Your task to perform on an android device: clear all cookies in the chrome app Image 0: 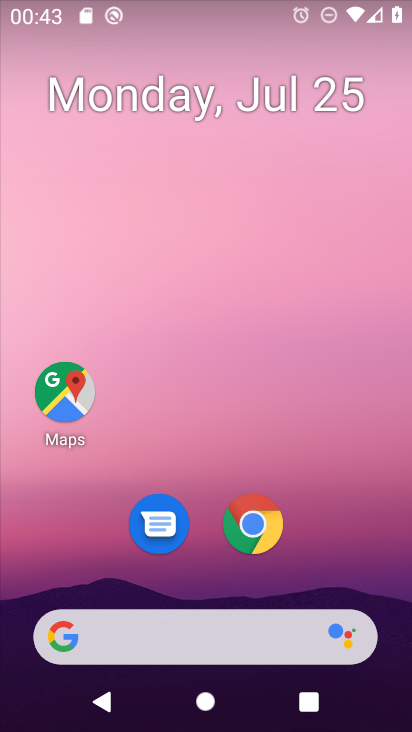
Step 0: click (260, 521)
Your task to perform on an android device: clear all cookies in the chrome app Image 1: 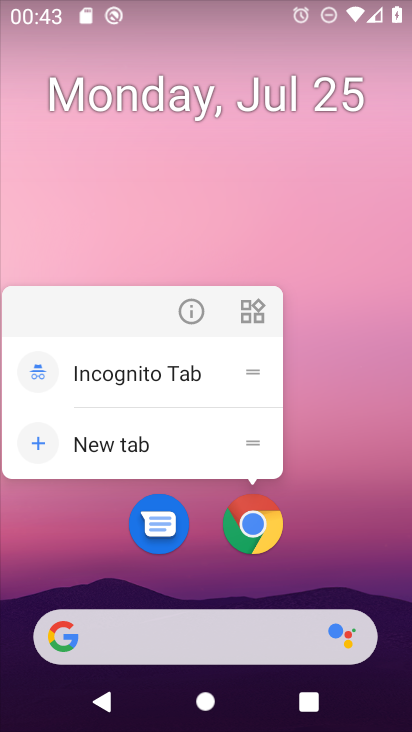
Step 1: click (250, 528)
Your task to perform on an android device: clear all cookies in the chrome app Image 2: 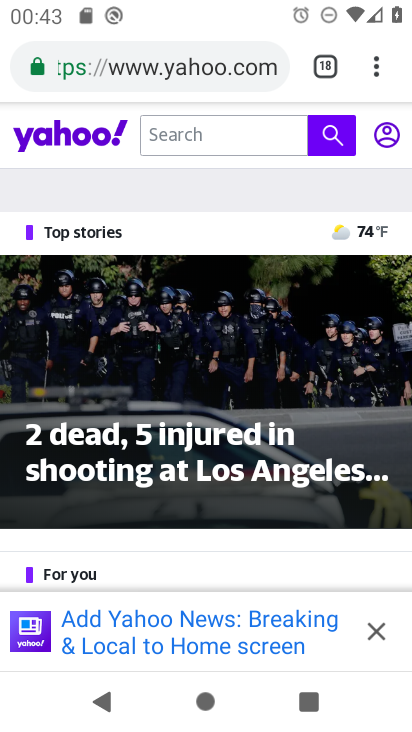
Step 2: drag from (374, 68) to (230, 530)
Your task to perform on an android device: clear all cookies in the chrome app Image 3: 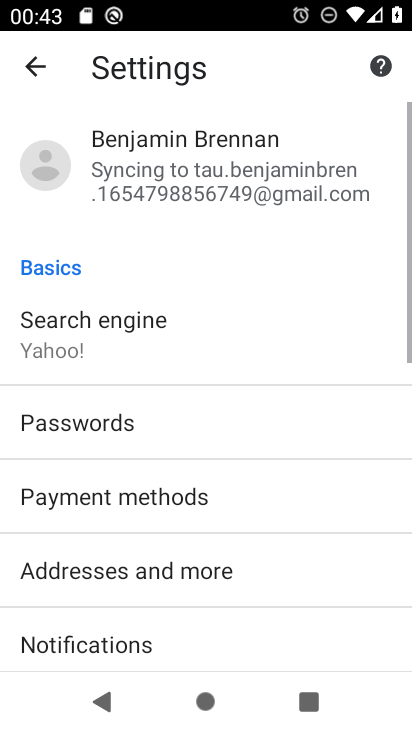
Step 3: drag from (290, 450) to (328, 237)
Your task to perform on an android device: clear all cookies in the chrome app Image 4: 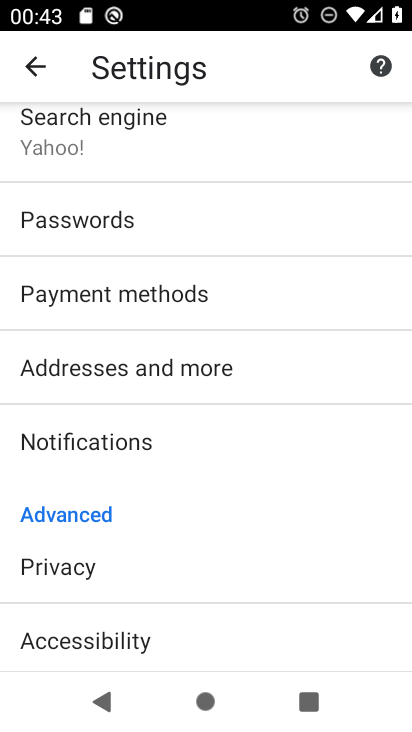
Step 4: drag from (235, 584) to (315, 272)
Your task to perform on an android device: clear all cookies in the chrome app Image 5: 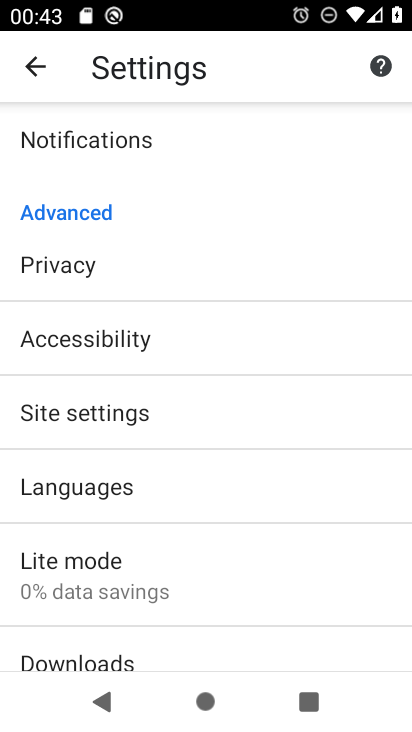
Step 5: click (85, 274)
Your task to perform on an android device: clear all cookies in the chrome app Image 6: 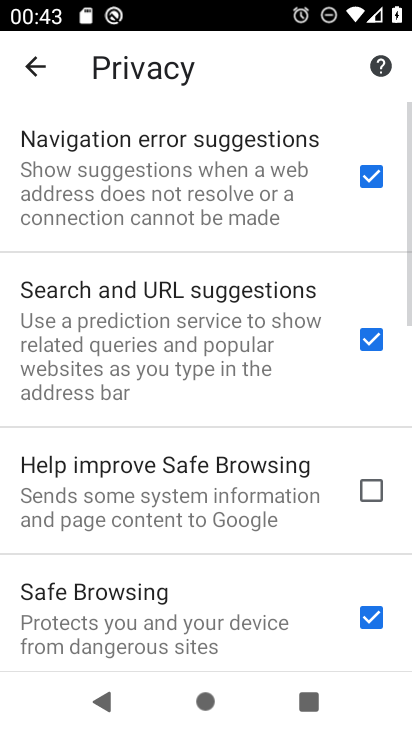
Step 6: drag from (215, 634) to (379, 146)
Your task to perform on an android device: clear all cookies in the chrome app Image 7: 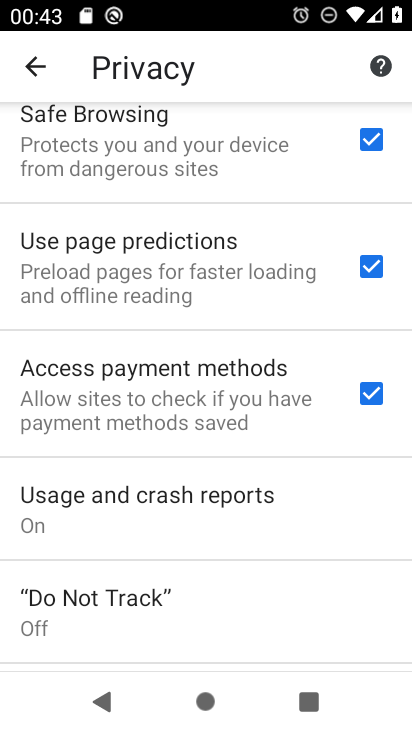
Step 7: drag from (243, 586) to (324, 255)
Your task to perform on an android device: clear all cookies in the chrome app Image 8: 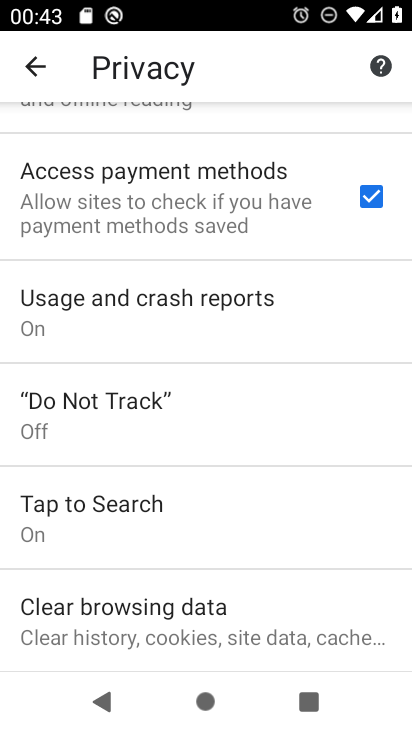
Step 8: click (189, 611)
Your task to perform on an android device: clear all cookies in the chrome app Image 9: 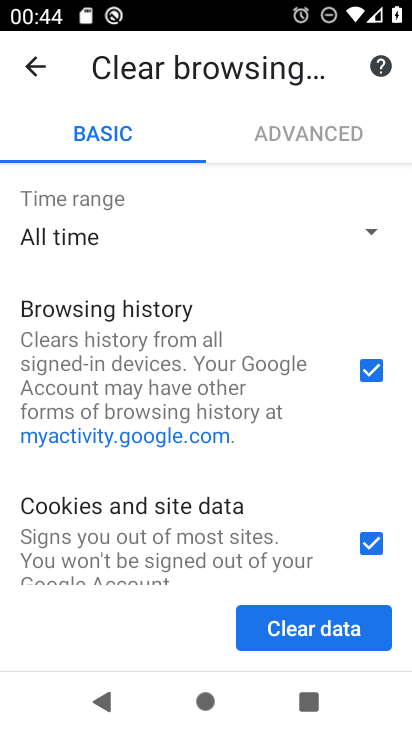
Step 9: click (363, 365)
Your task to perform on an android device: clear all cookies in the chrome app Image 10: 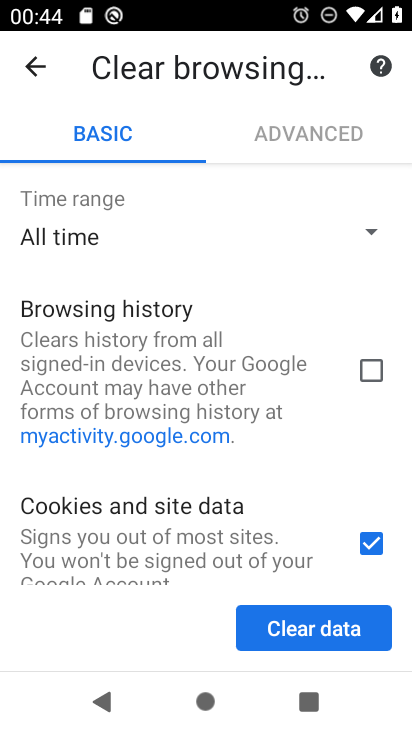
Step 10: drag from (213, 566) to (323, 229)
Your task to perform on an android device: clear all cookies in the chrome app Image 11: 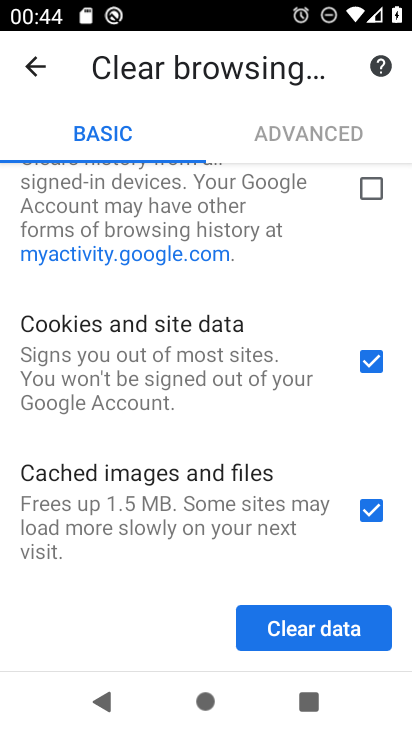
Step 11: click (367, 508)
Your task to perform on an android device: clear all cookies in the chrome app Image 12: 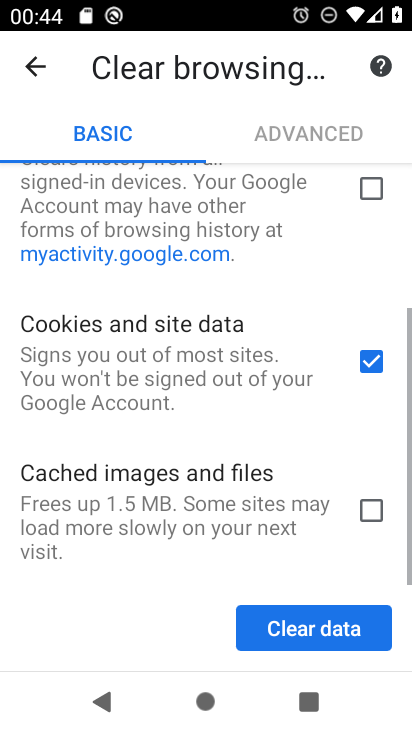
Step 12: click (337, 642)
Your task to perform on an android device: clear all cookies in the chrome app Image 13: 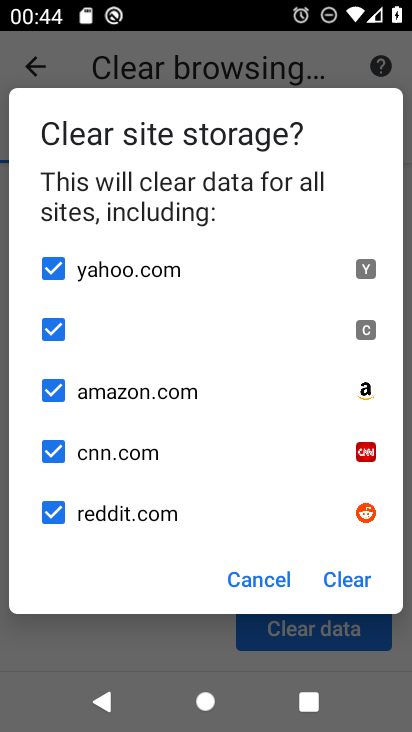
Step 13: click (349, 575)
Your task to perform on an android device: clear all cookies in the chrome app Image 14: 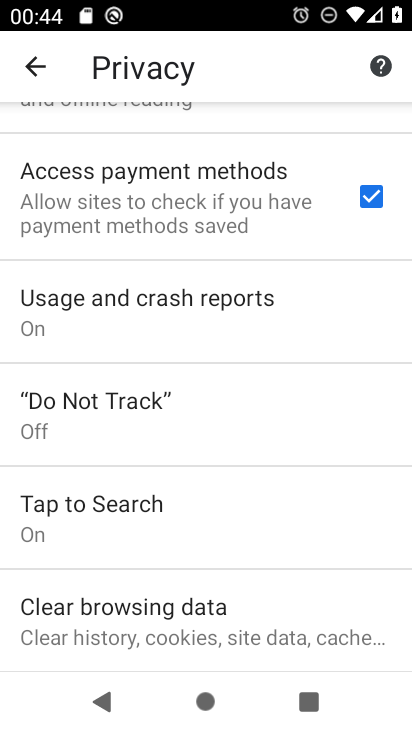
Step 14: task complete